Your task to perform on an android device: Open Google Image 0: 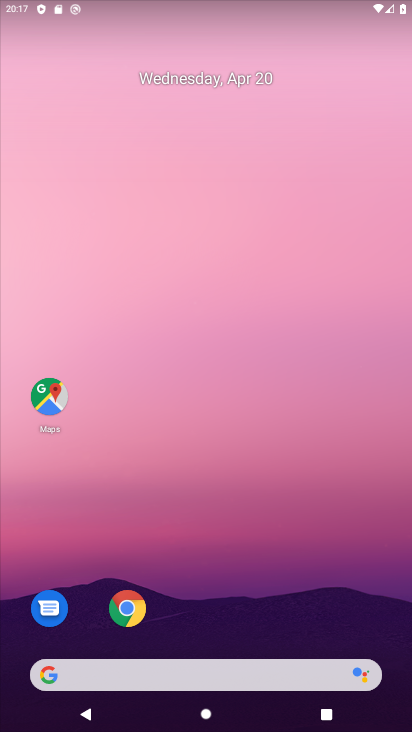
Step 0: drag from (194, 555) to (196, 0)
Your task to perform on an android device: Open Google Image 1: 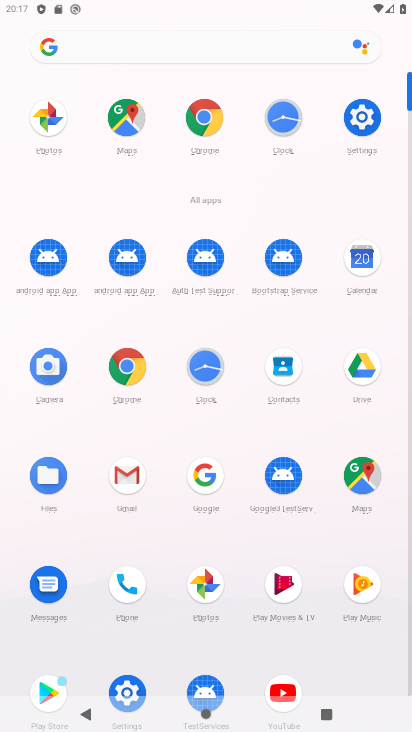
Step 1: click (208, 472)
Your task to perform on an android device: Open Google Image 2: 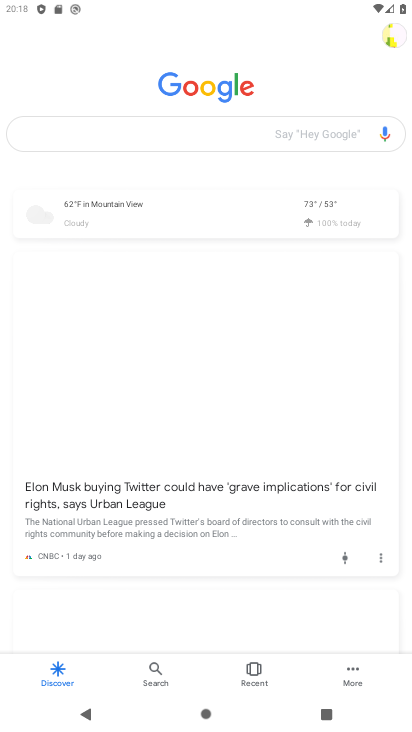
Step 2: task complete